Your task to perform on an android device: clear history in the chrome app Image 0: 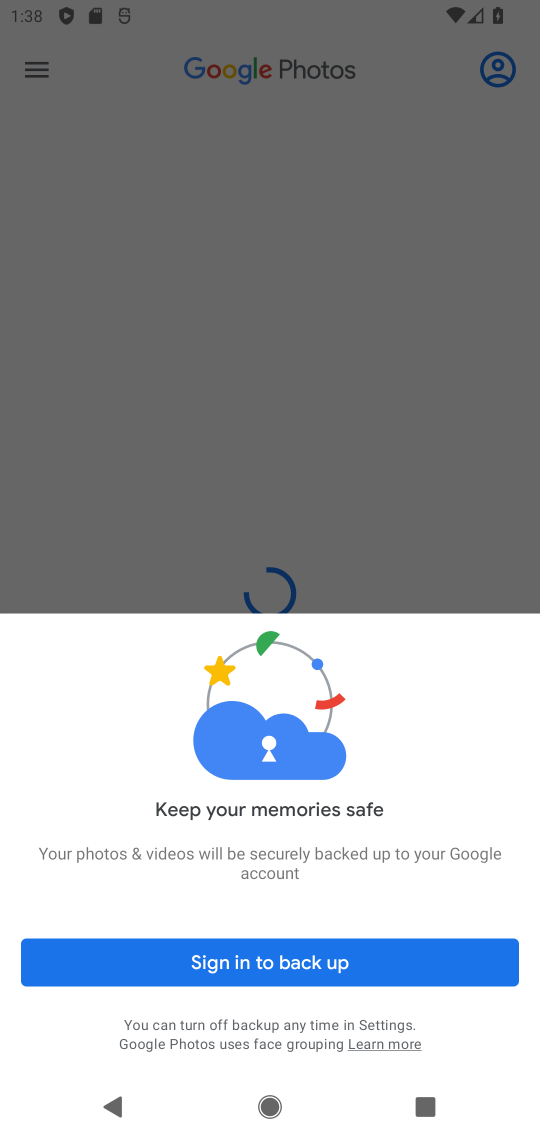
Step 0: press home button
Your task to perform on an android device: clear history in the chrome app Image 1: 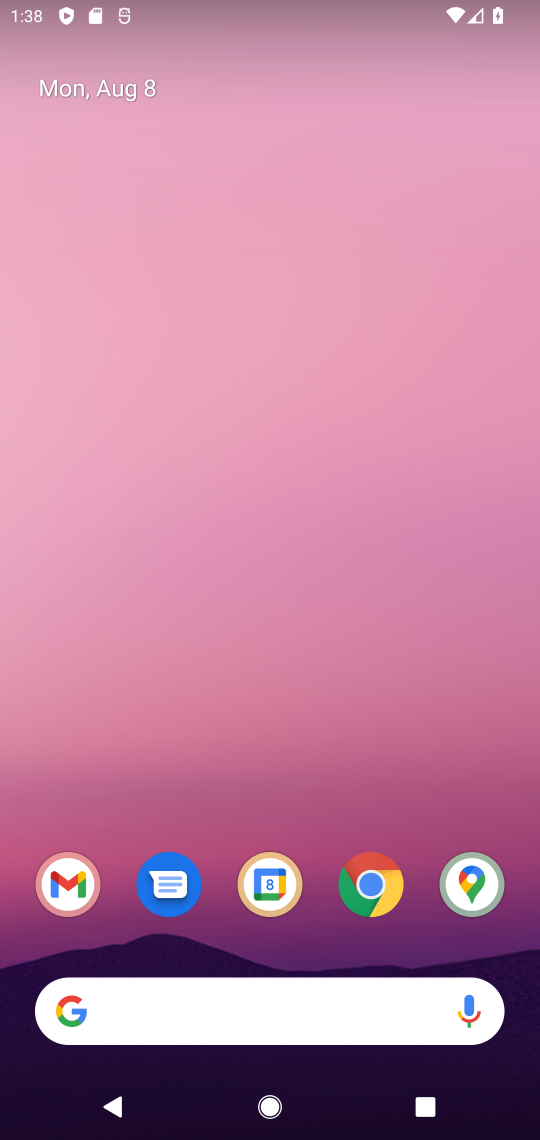
Step 1: click (374, 885)
Your task to perform on an android device: clear history in the chrome app Image 2: 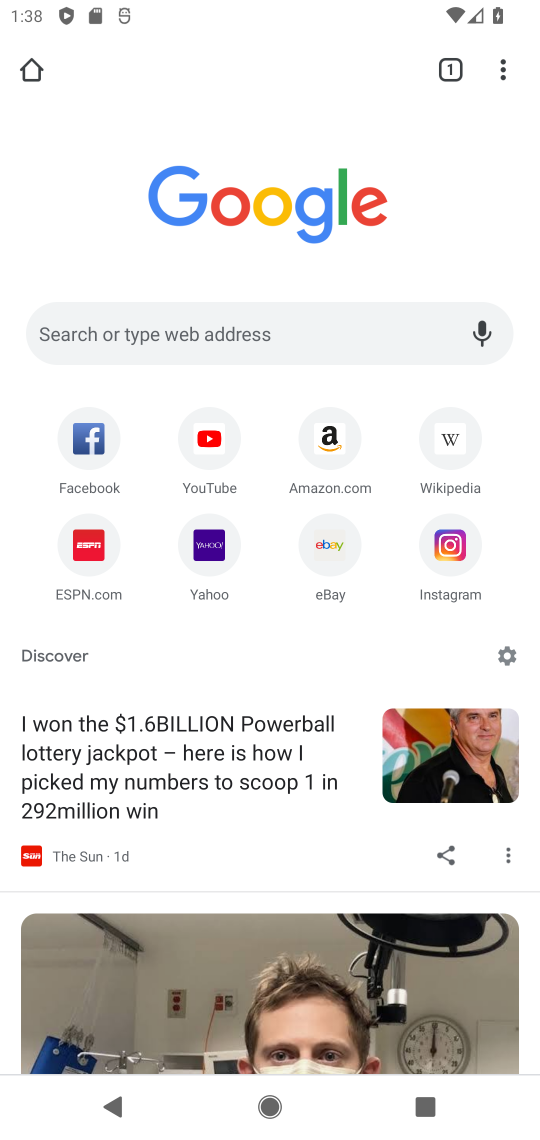
Step 2: click (494, 73)
Your task to perform on an android device: clear history in the chrome app Image 3: 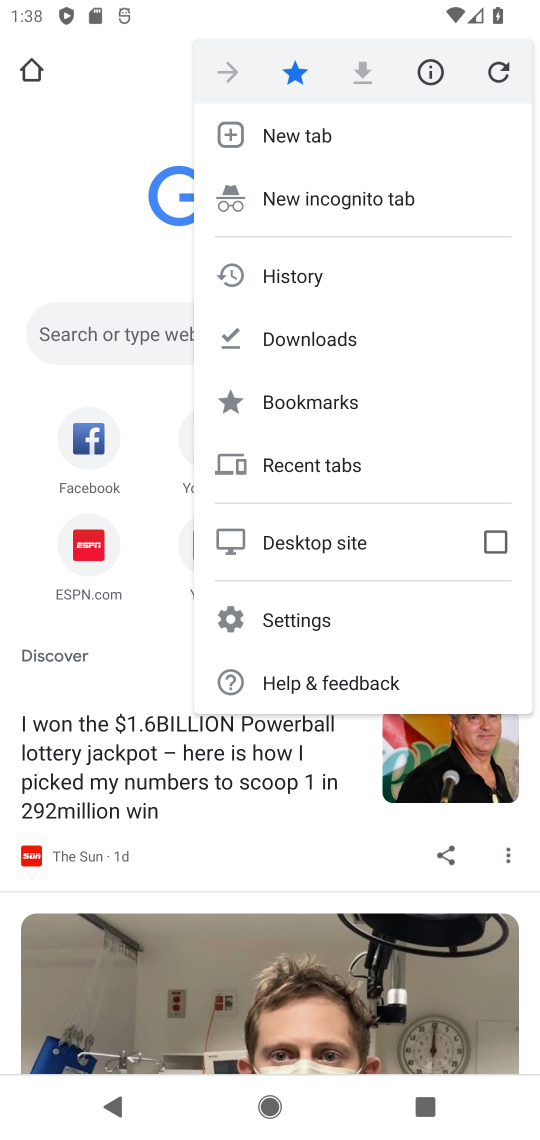
Step 3: click (289, 279)
Your task to perform on an android device: clear history in the chrome app Image 4: 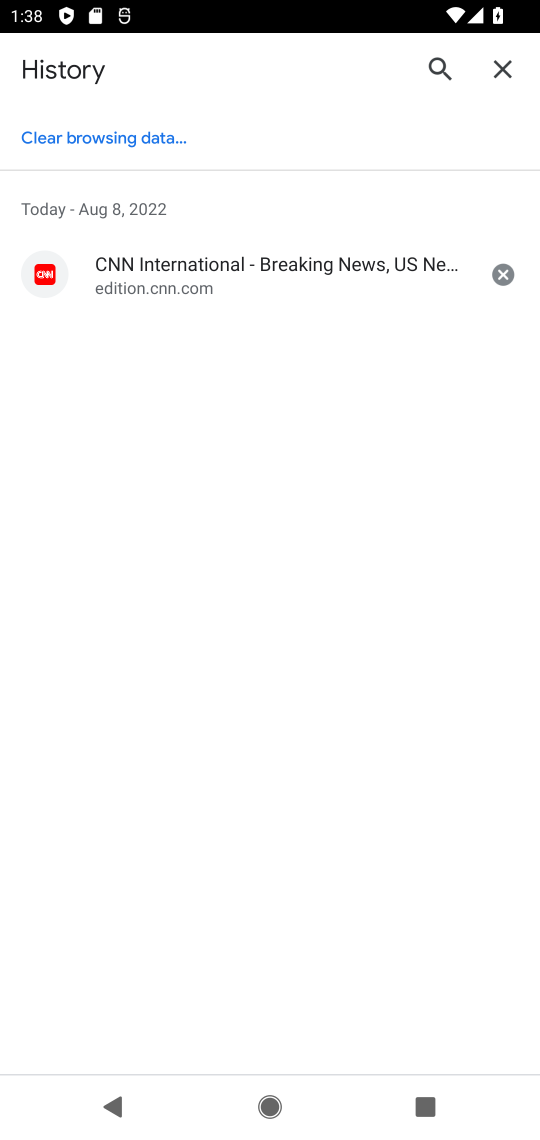
Step 4: click (93, 134)
Your task to perform on an android device: clear history in the chrome app Image 5: 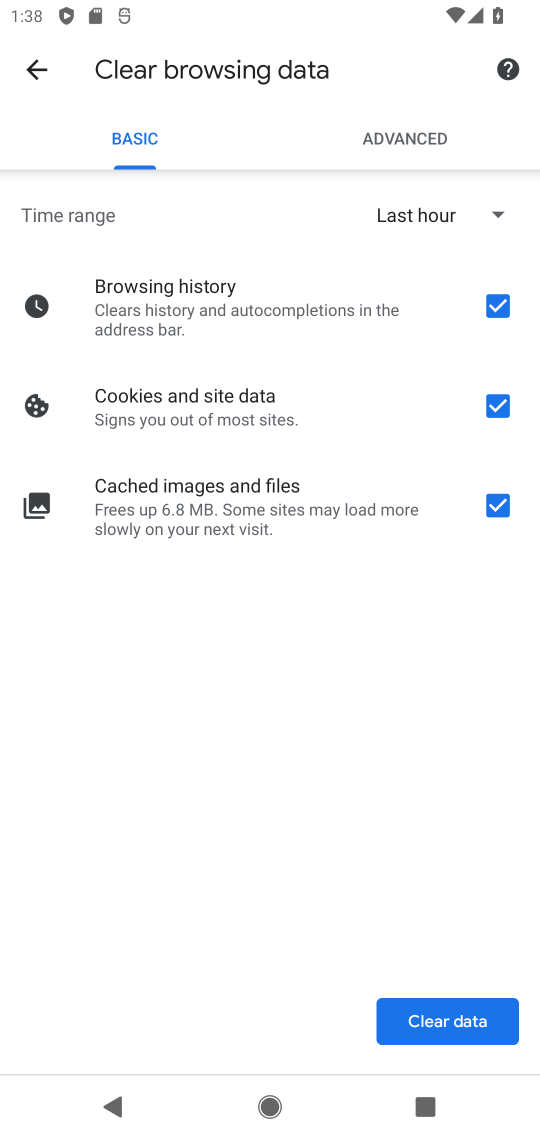
Step 5: click (442, 1020)
Your task to perform on an android device: clear history in the chrome app Image 6: 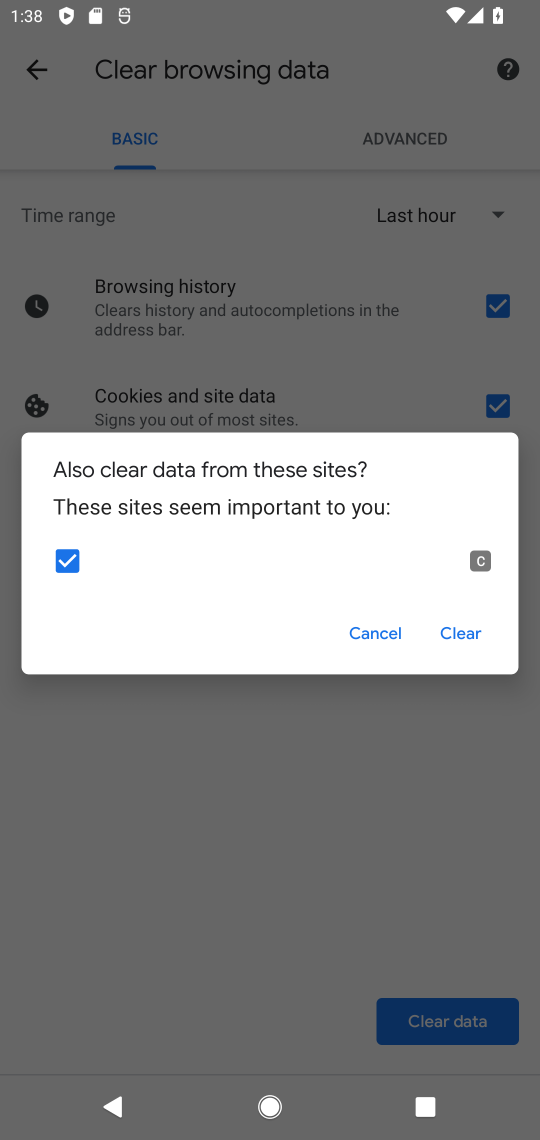
Step 6: click (459, 634)
Your task to perform on an android device: clear history in the chrome app Image 7: 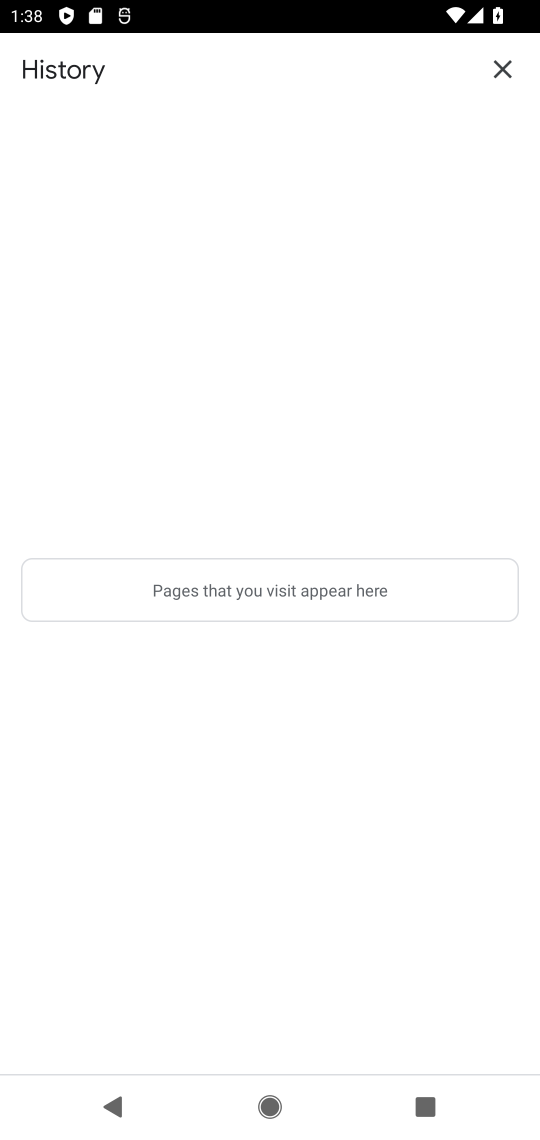
Step 7: task complete